Your task to perform on an android device: Go to wifi settings Image 0: 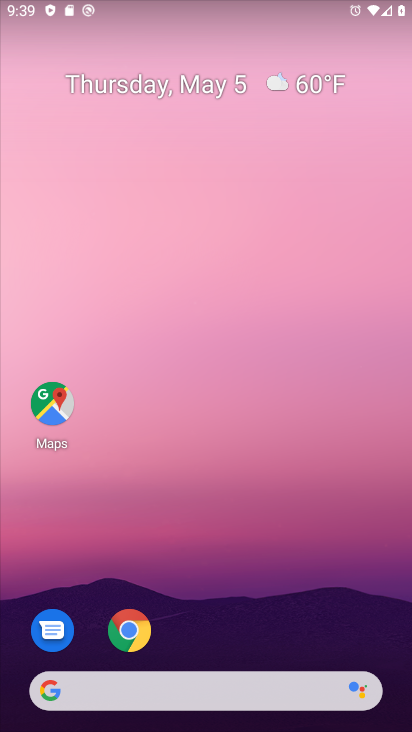
Step 0: drag from (245, 634) to (285, 122)
Your task to perform on an android device: Go to wifi settings Image 1: 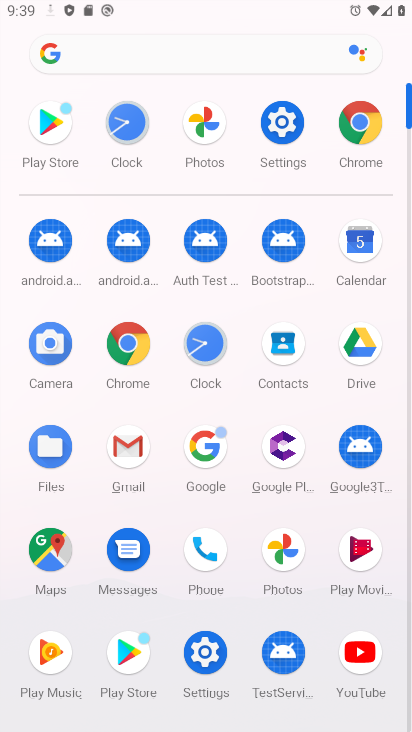
Step 1: click (279, 124)
Your task to perform on an android device: Go to wifi settings Image 2: 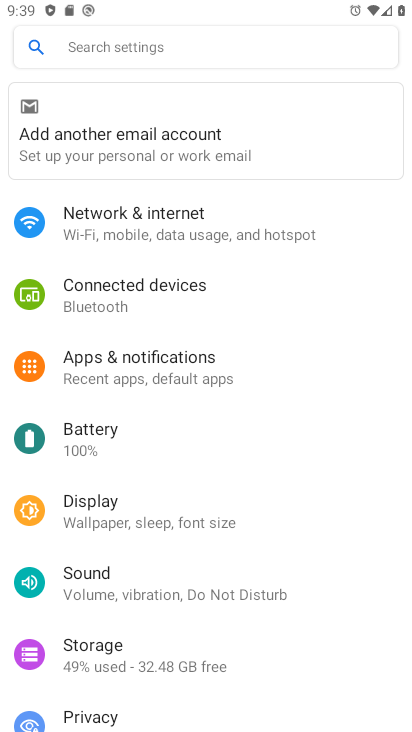
Step 2: click (232, 229)
Your task to perform on an android device: Go to wifi settings Image 3: 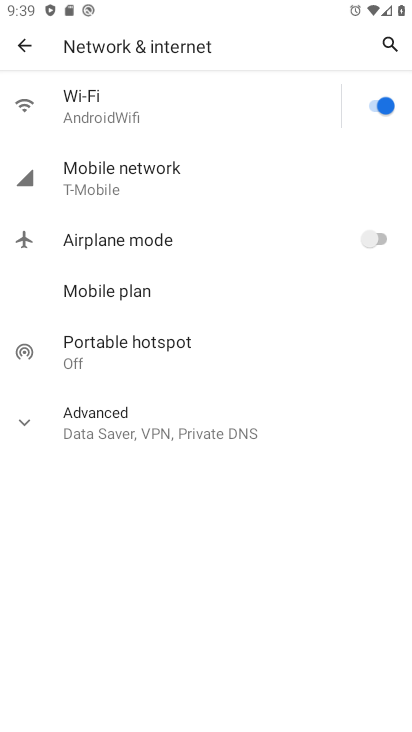
Step 3: click (209, 88)
Your task to perform on an android device: Go to wifi settings Image 4: 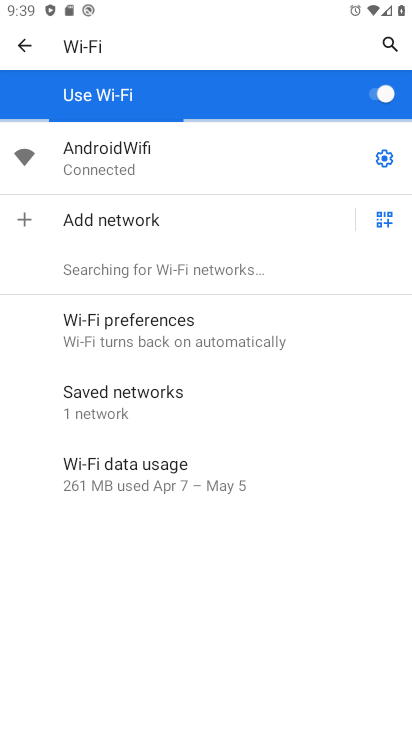
Step 4: task complete